Your task to perform on an android device: check the backup settings in the google photos Image 0: 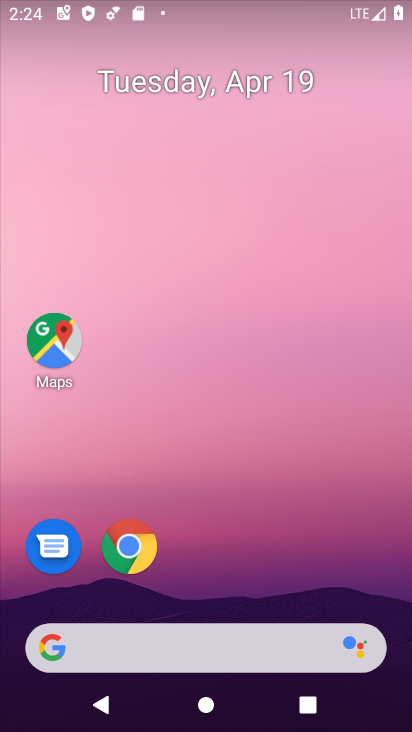
Step 0: drag from (200, 634) to (185, 66)
Your task to perform on an android device: check the backup settings in the google photos Image 1: 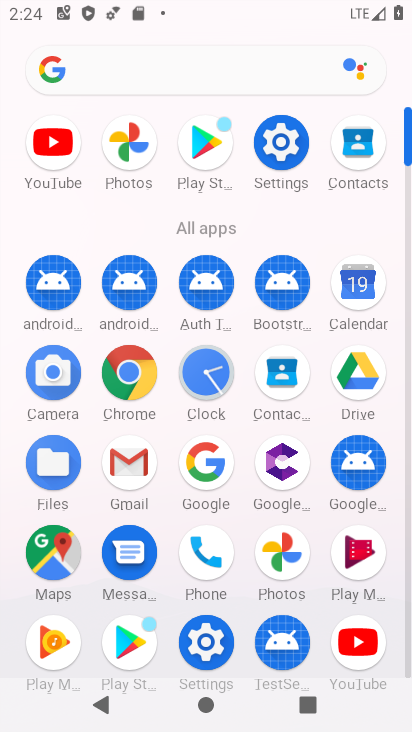
Step 1: click (122, 149)
Your task to perform on an android device: check the backup settings in the google photos Image 2: 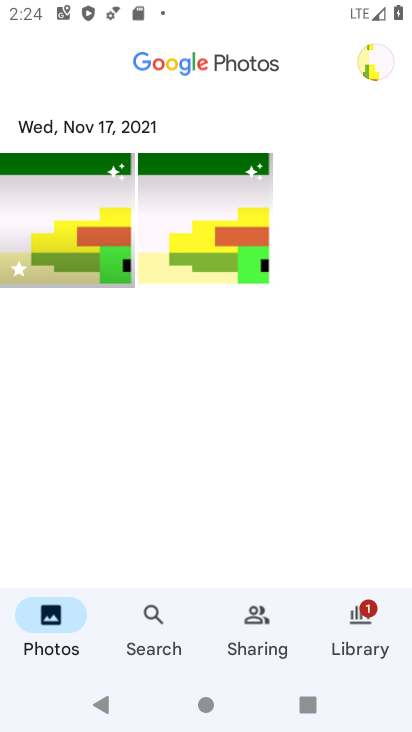
Step 2: click (388, 60)
Your task to perform on an android device: check the backup settings in the google photos Image 3: 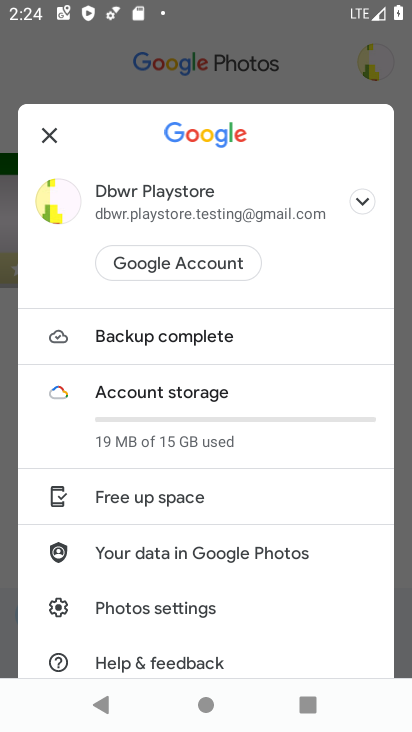
Step 3: click (194, 604)
Your task to perform on an android device: check the backup settings in the google photos Image 4: 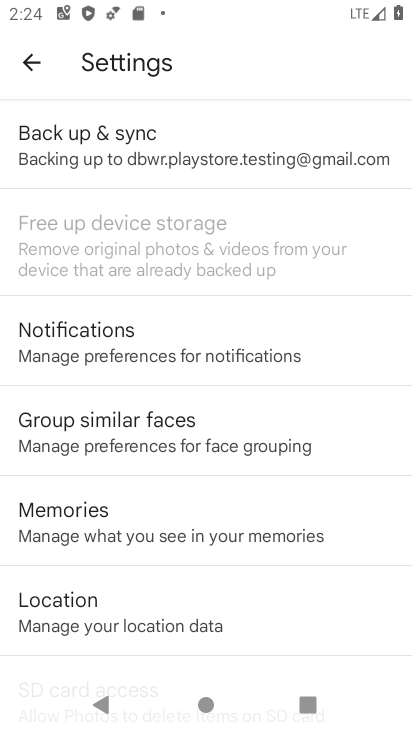
Step 4: click (67, 140)
Your task to perform on an android device: check the backup settings in the google photos Image 5: 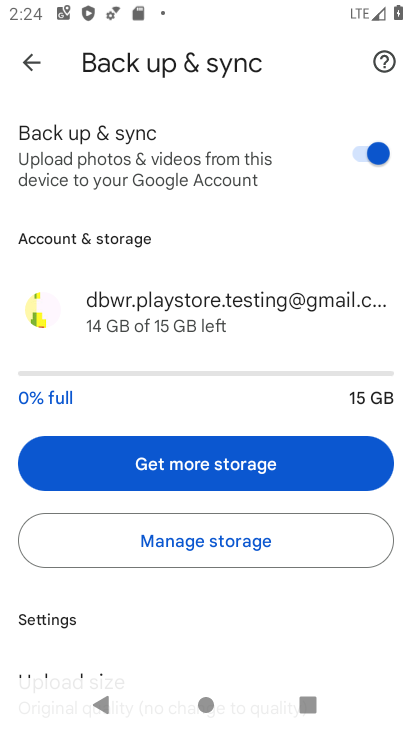
Step 5: task complete